Your task to perform on an android device: Open Wikipedia Image 0: 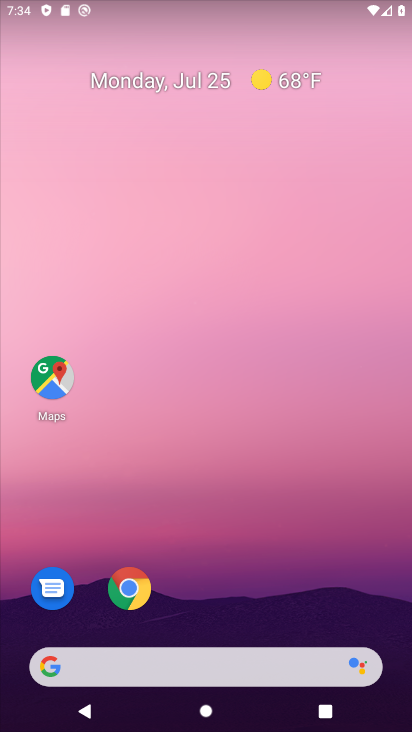
Step 0: press home button
Your task to perform on an android device: Open Wikipedia Image 1: 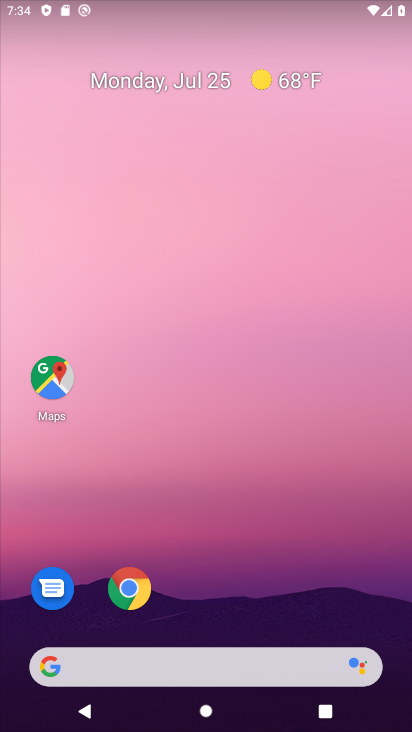
Step 1: drag from (342, 569) to (323, 57)
Your task to perform on an android device: Open Wikipedia Image 2: 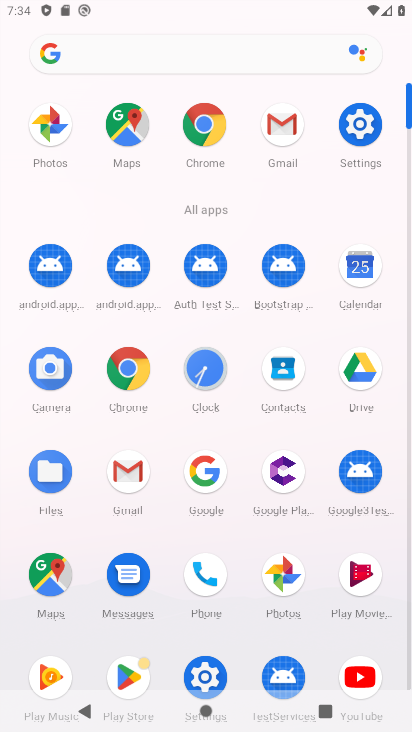
Step 2: click (207, 127)
Your task to perform on an android device: Open Wikipedia Image 3: 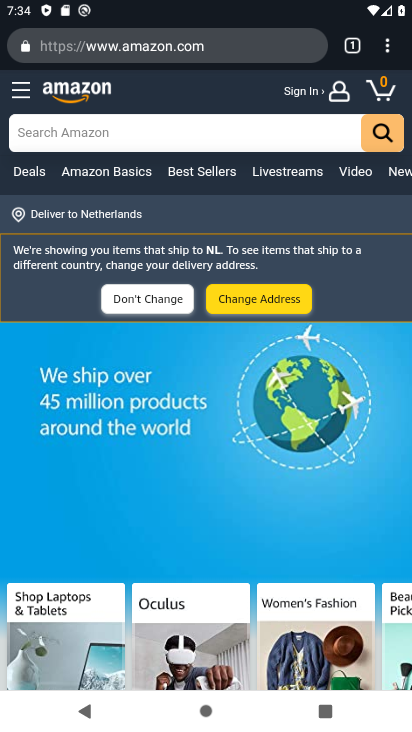
Step 3: click (233, 49)
Your task to perform on an android device: Open Wikipedia Image 4: 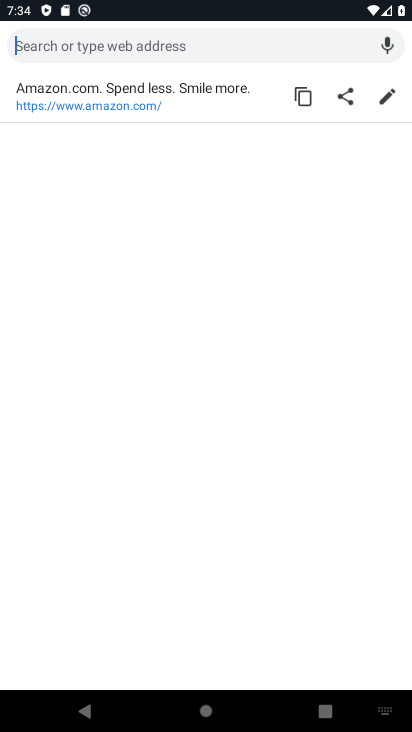
Step 4: type "wikipedia"
Your task to perform on an android device: Open Wikipedia Image 5: 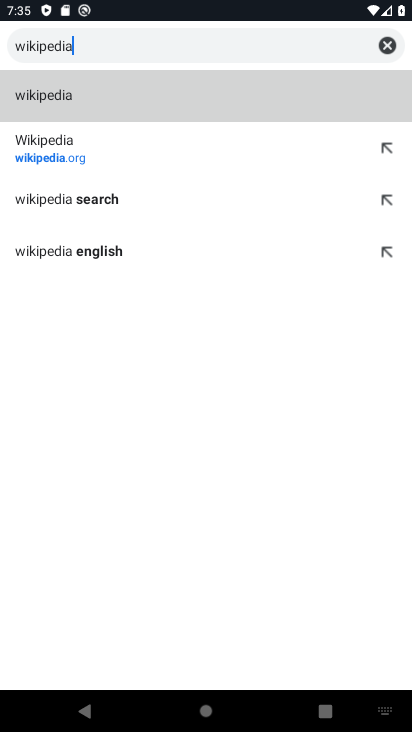
Step 5: click (216, 102)
Your task to perform on an android device: Open Wikipedia Image 6: 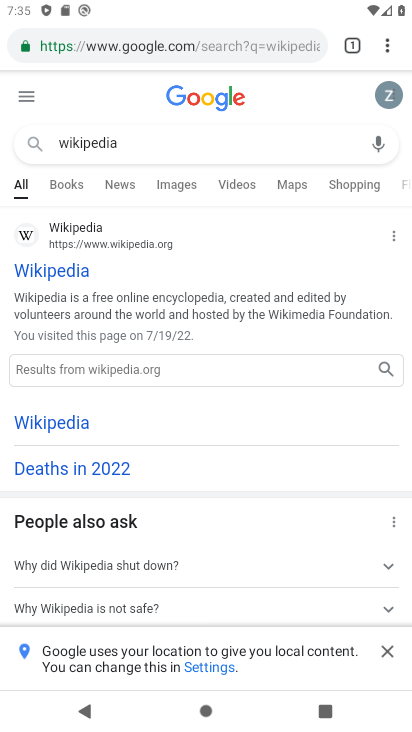
Step 6: task complete